Your task to perform on an android device: What is the recent news? Image 0: 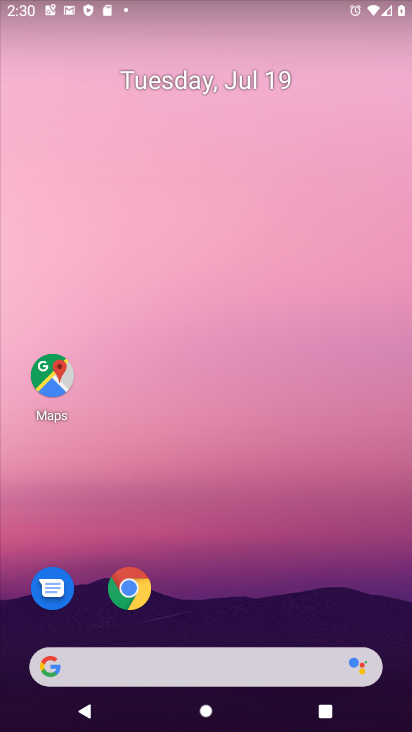
Step 0: drag from (342, 621) to (327, 23)
Your task to perform on an android device: What is the recent news? Image 1: 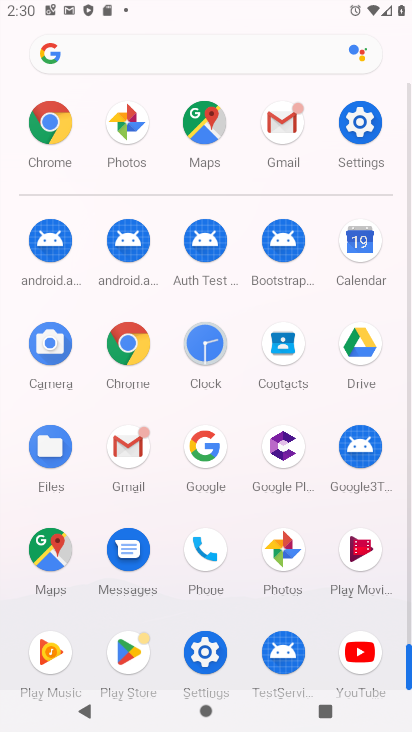
Step 1: click (191, 456)
Your task to perform on an android device: What is the recent news? Image 2: 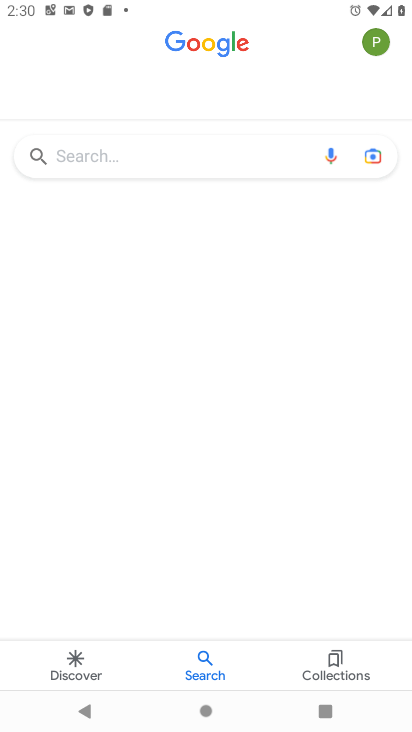
Step 2: click (143, 157)
Your task to perform on an android device: What is the recent news? Image 3: 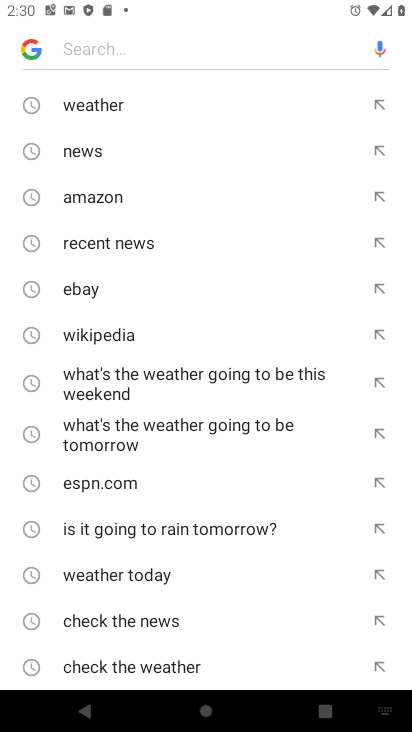
Step 3: click (119, 153)
Your task to perform on an android device: What is the recent news? Image 4: 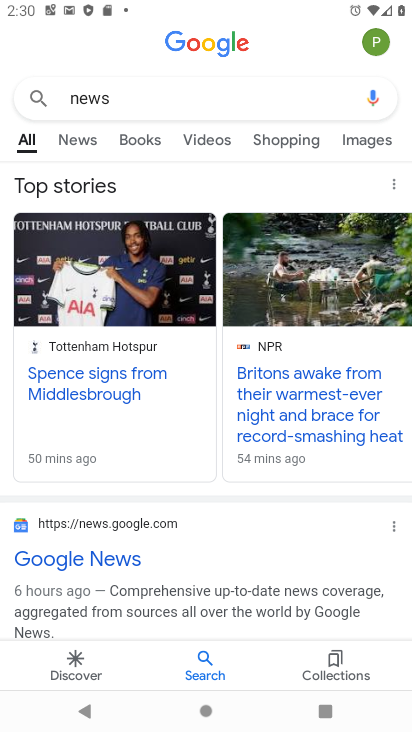
Step 4: task complete